Your task to perform on an android device: Toggle the flashlight Image 0: 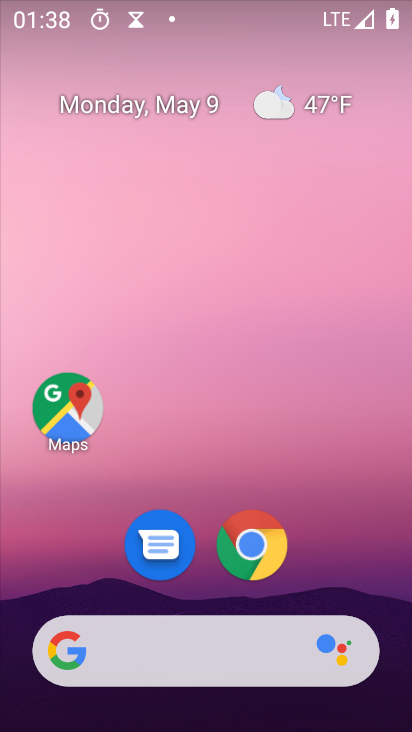
Step 0: drag from (329, 610) to (313, 29)
Your task to perform on an android device: Toggle the flashlight Image 1: 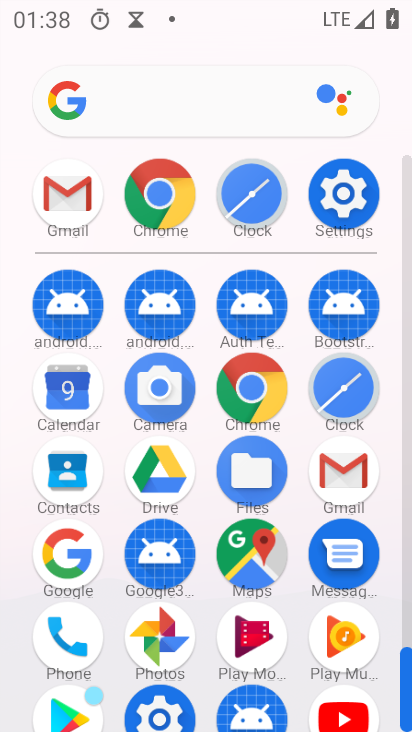
Step 1: click (348, 206)
Your task to perform on an android device: Toggle the flashlight Image 2: 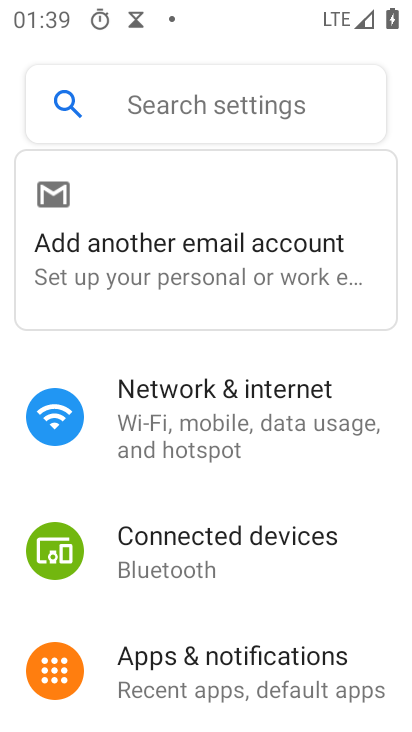
Step 2: task complete